Your task to perform on an android device: toggle priority inbox in the gmail app Image 0: 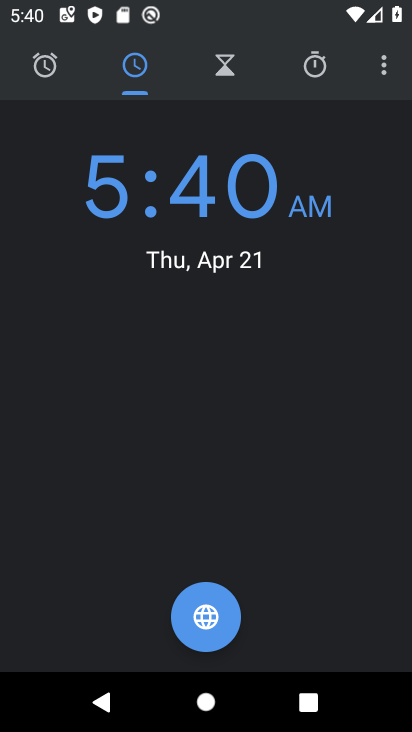
Step 0: press back button
Your task to perform on an android device: toggle priority inbox in the gmail app Image 1: 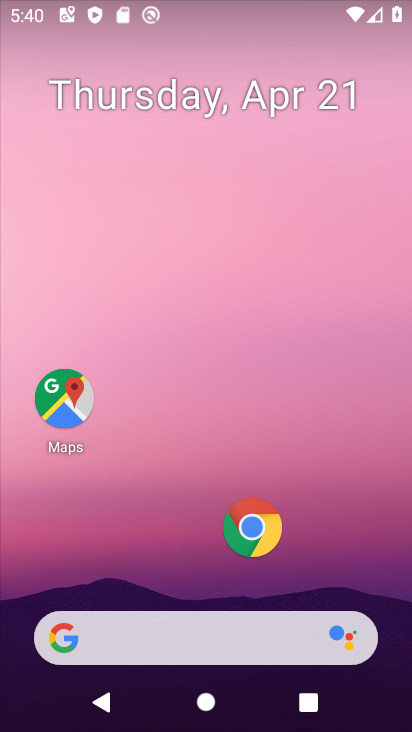
Step 1: drag from (109, 566) to (267, 72)
Your task to perform on an android device: toggle priority inbox in the gmail app Image 2: 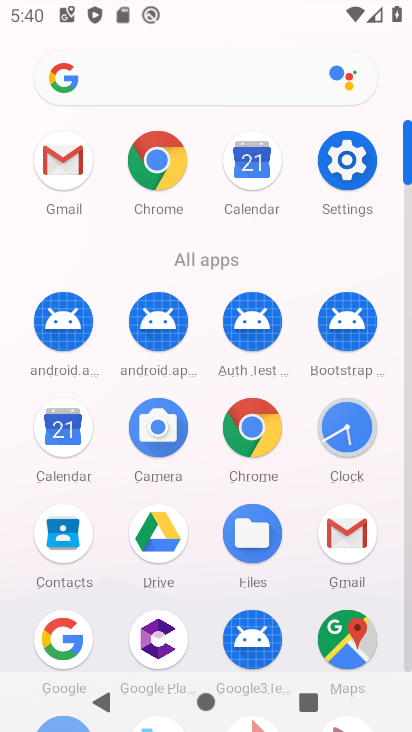
Step 2: click (71, 166)
Your task to perform on an android device: toggle priority inbox in the gmail app Image 3: 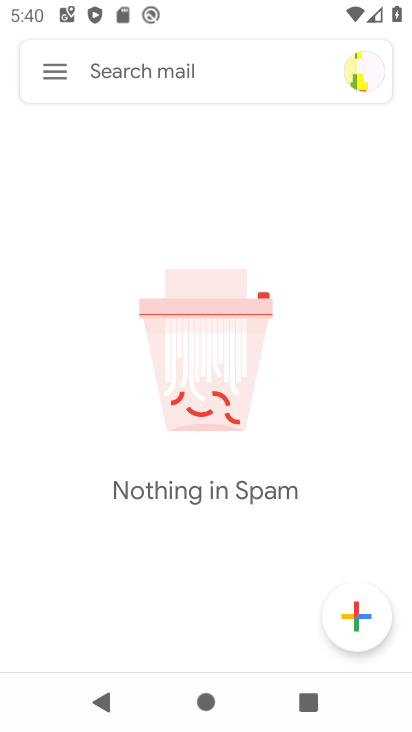
Step 3: click (72, 70)
Your task to perform on an android device: toggle priority inbox in the gmail app Image 4: 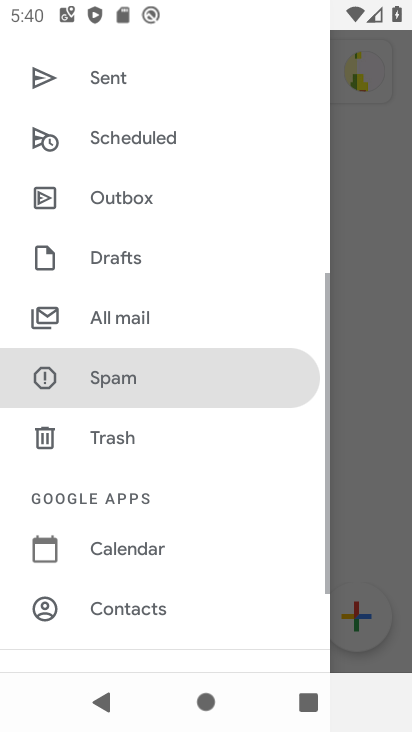
Step 4: drag from (186, 570) to (259, 60)
Your task to perform on an android device: toggle priority inbox in the gmail app Image 5: 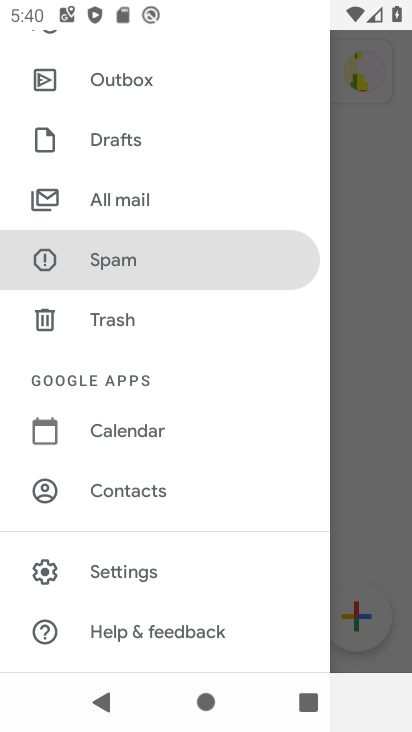
Step 5: click (160, 568)
Your task to perform on an android device: toggle priority inbox in the gmail app Image 6: 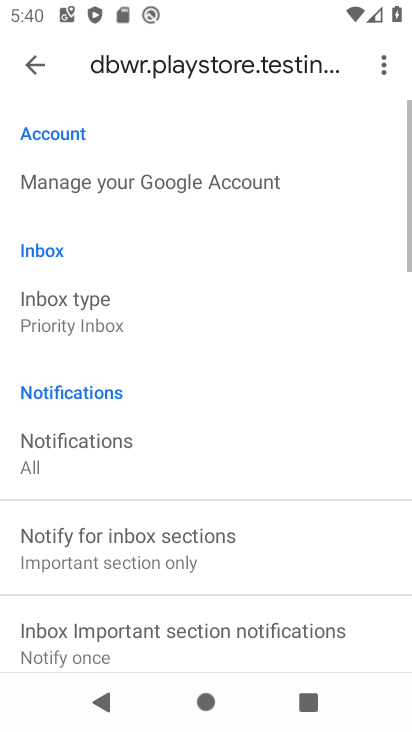
Step 6: click (123, 318)
Your task to perform on an android device: toggle priority inbox in the gmail app Image 7: 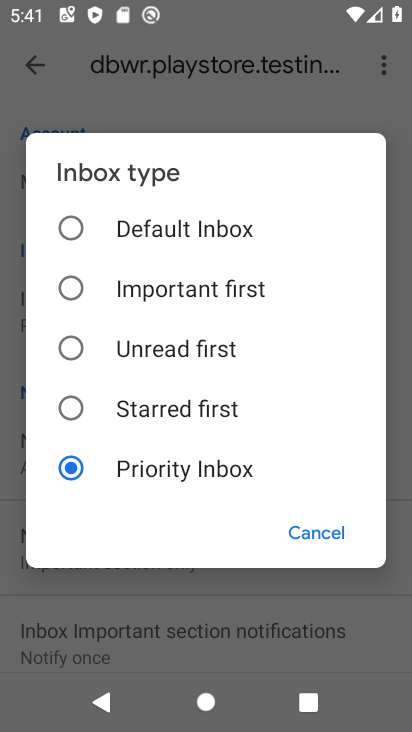
Step 7: click (90, 469)
Your task to perform on an android device: toggle priority inbox in the gmail app Image 8: 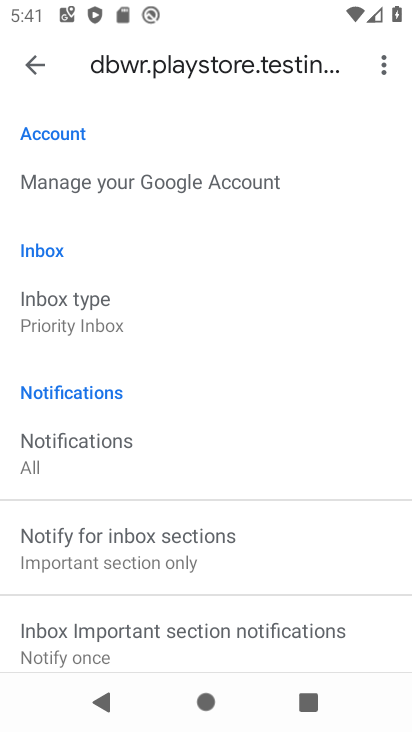
Step 8: task complete